Your task to perform on an android device: Clear the cart on walmart. Add acer predator to the cart on walmart Image 0: 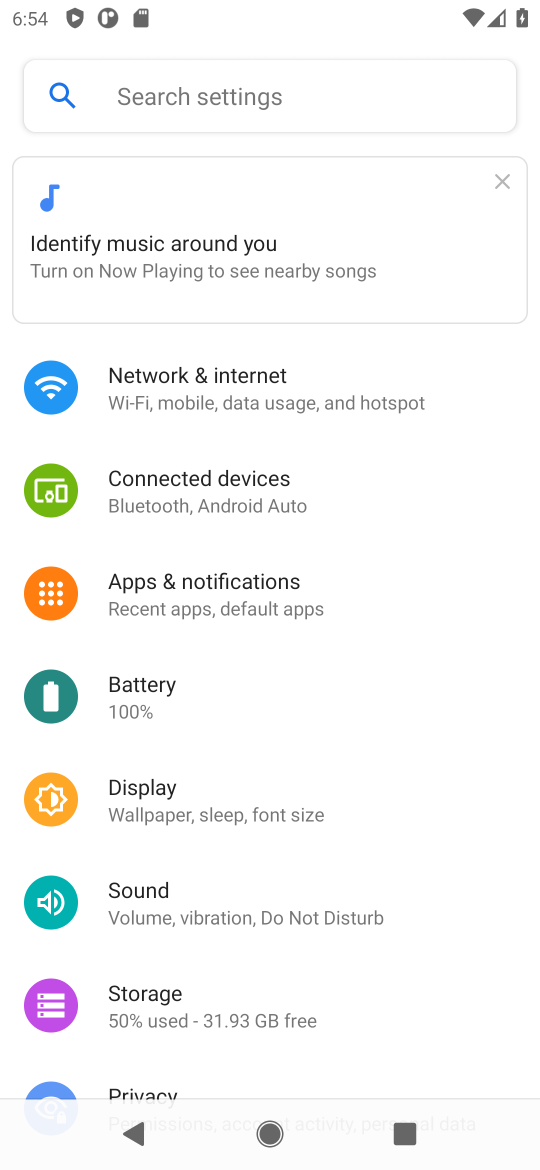
Step 0: press home button
Your task to perform on an android device: Clear the cart on walmart. Add acer predator to the cart on walmart Image 1: 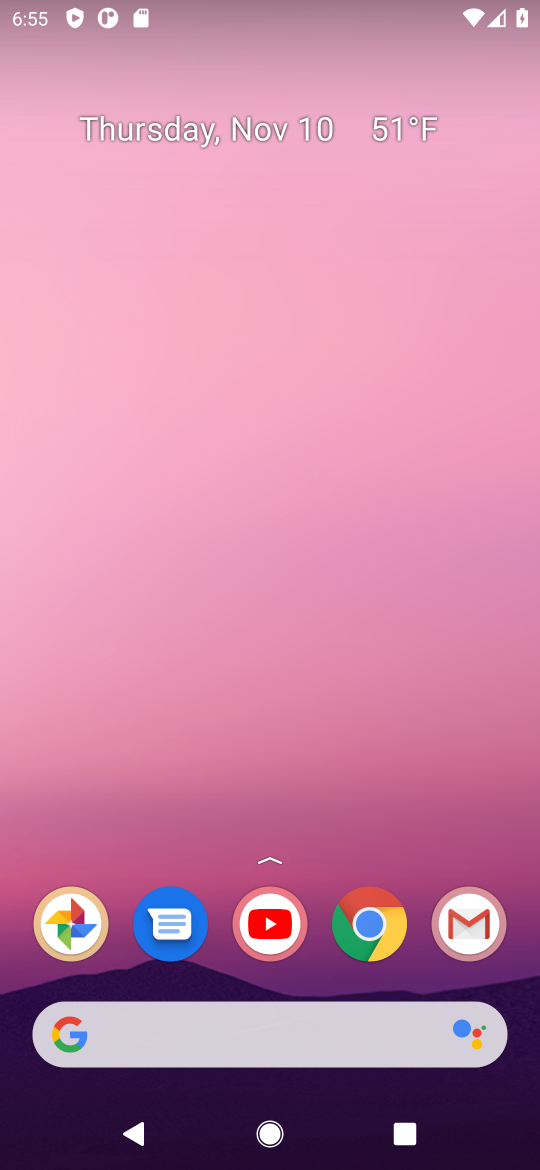
Step 1: click (364, 935)
Your task to perform on an android device: Clear the cart on walmart. Add acer predator to the cart on walmart Image 2: 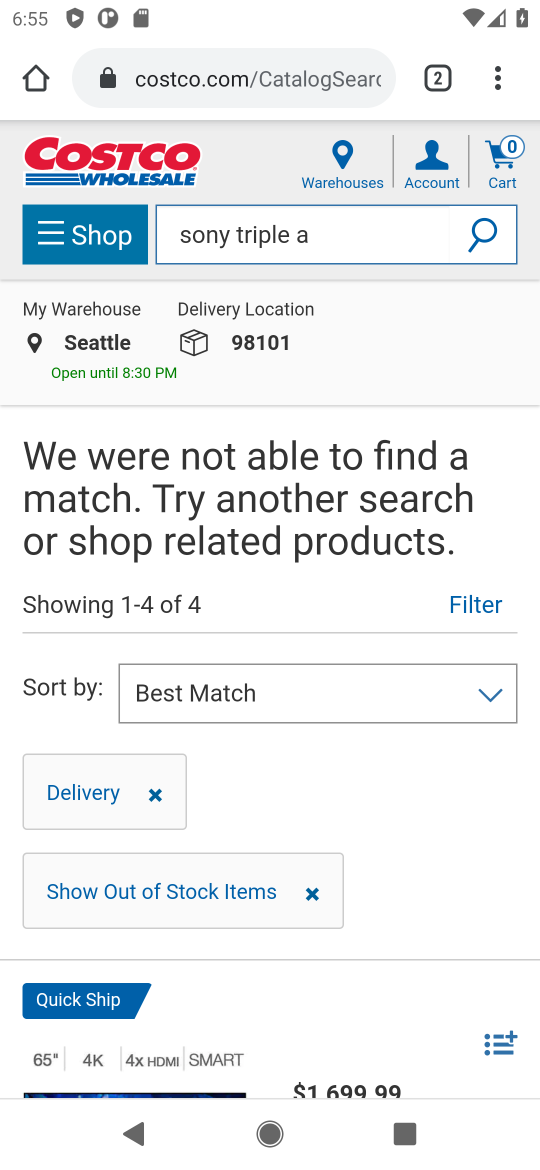
Step 2: click (218, 84)
Your task to perform on an android device: Clear the cart on walmart. Add acer predator to the cart on walmart Image 3: 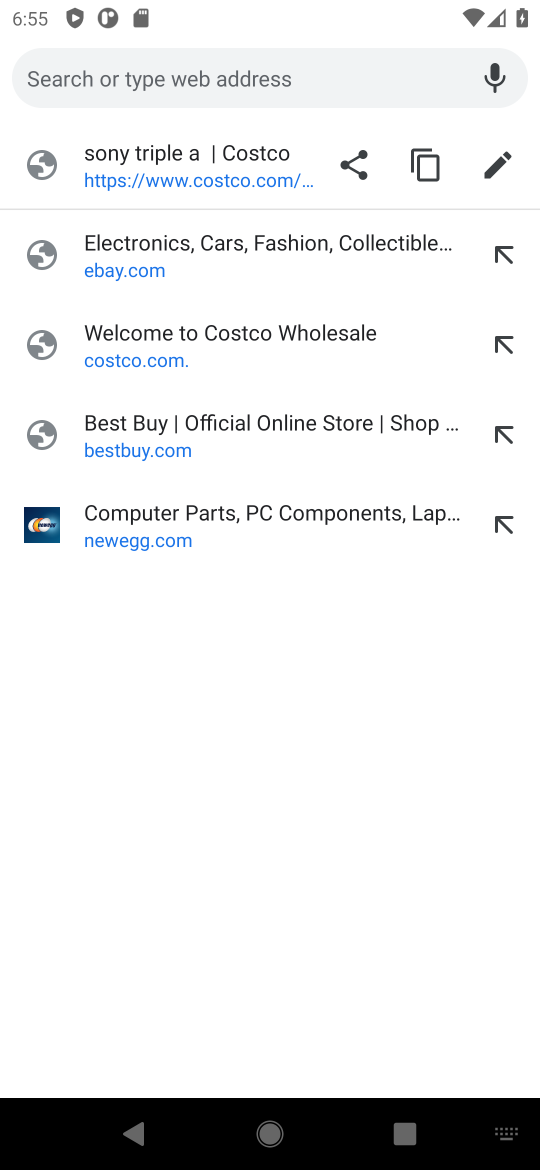
Step 3: type "walmart.com"
Your task to perform on an android device: Clear the cart on walmart. Add acer predator to the cart on walmart Image 4: 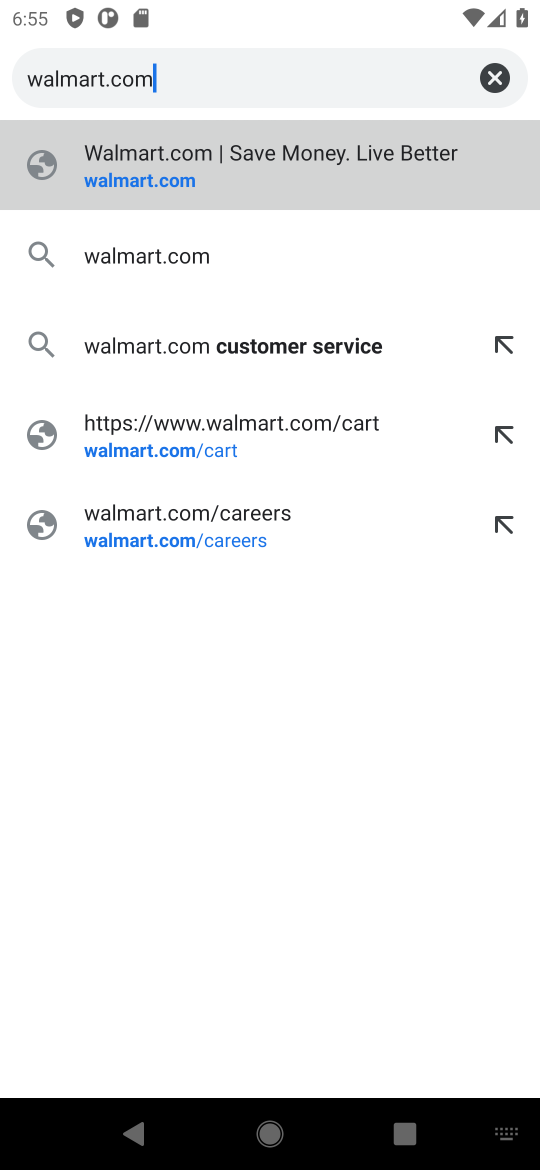
Step 4: click (128, 184)
Your task to perform on an android device: Clear the cart on walmart. Add acer predator to the cart on walmart Image 5: 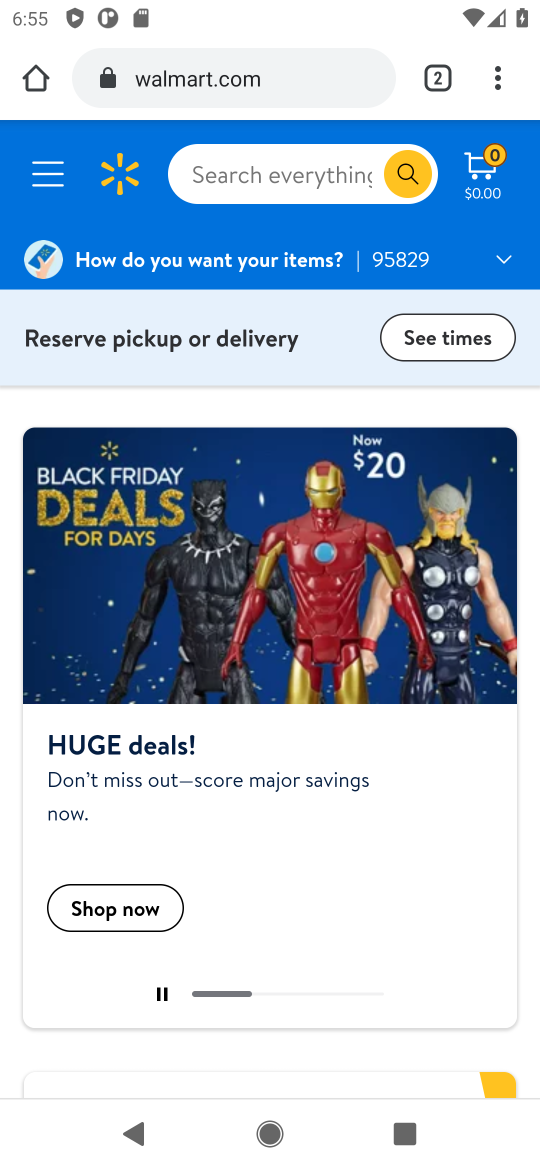
Step 5: click (487, 173)
Your task to perform on an android device: Clear the cart on walmart. Add acer predator to the cart on walmart Image 6: 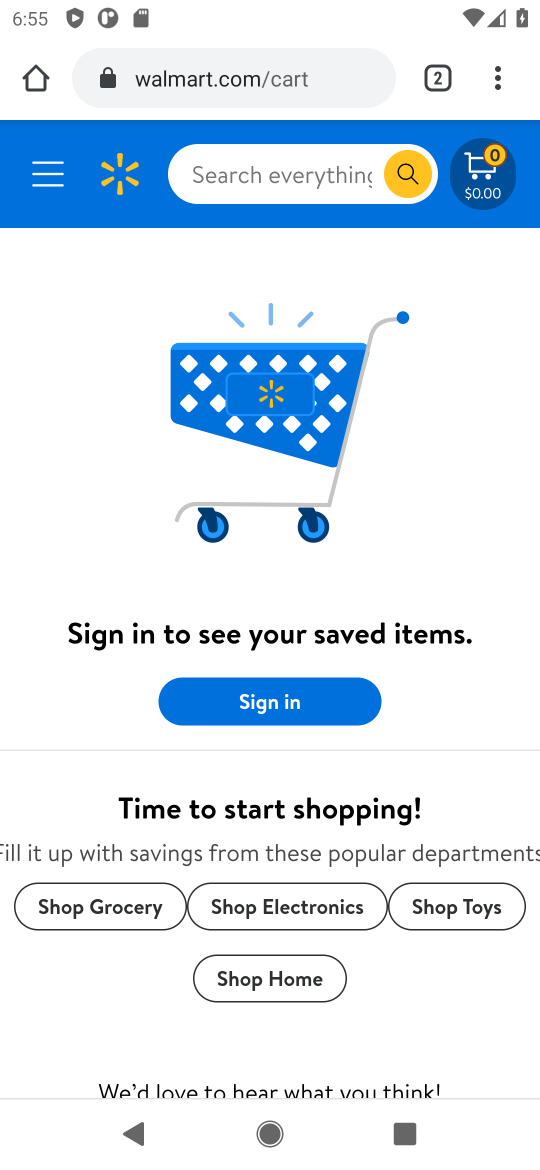
Step 6: click (267, 193)
Your task to perform on an android device: Clear the cart on walmart. Add acer predator to the cart on walmart Image 7: 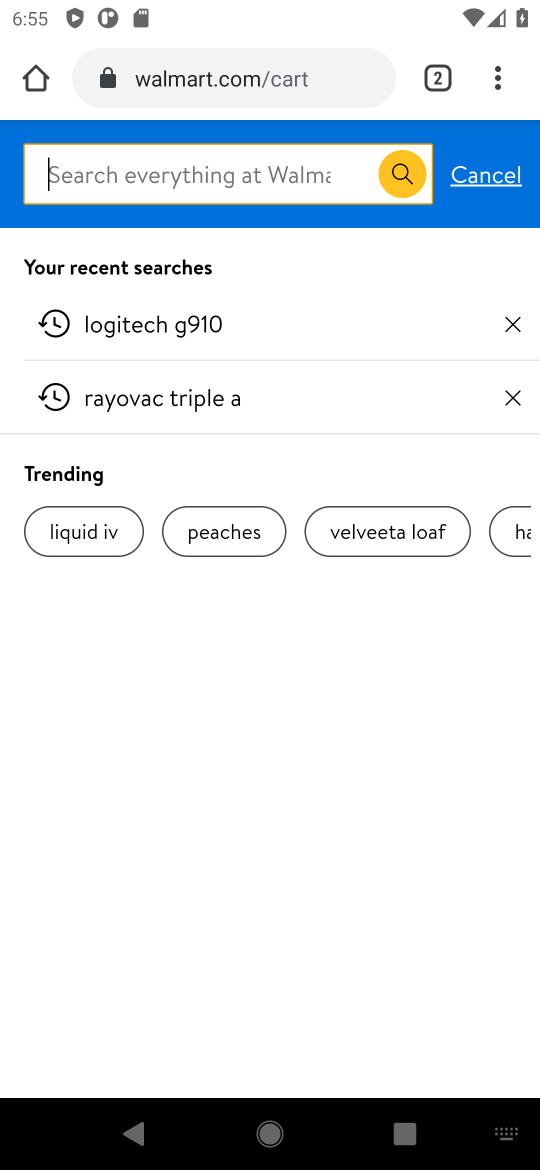
Step 7: type "acer predator"
Your task to perform on an android device: Clear the cart on walmart. Add acer predator to the cart on walmart Image 8: 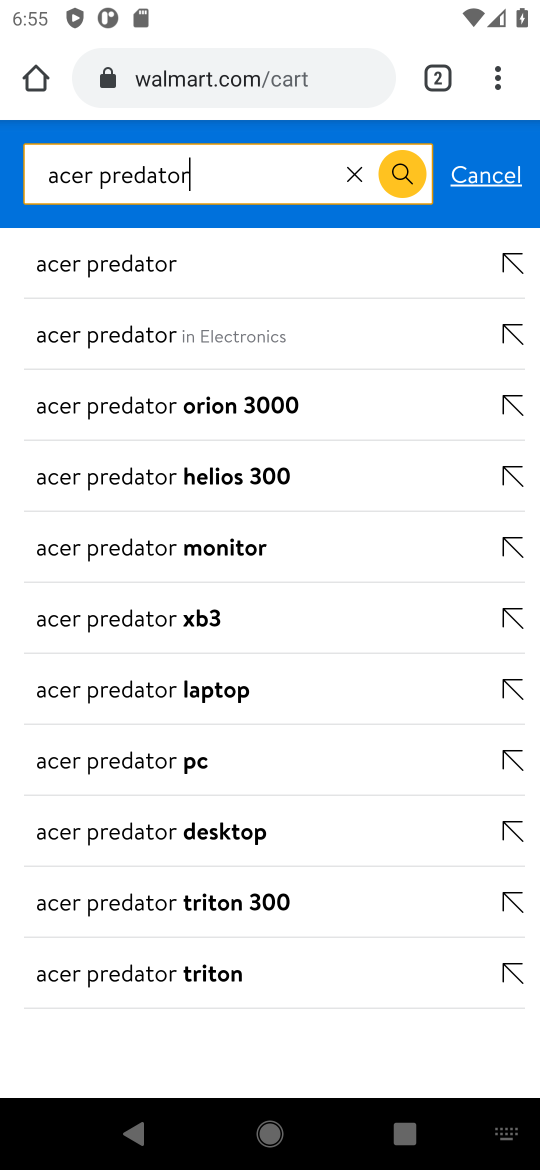
Step 8: click (145, 262)
Your task to perform on an android device: Clear the cart on walmart. Add acer predator to the cart on walmart Image 9: 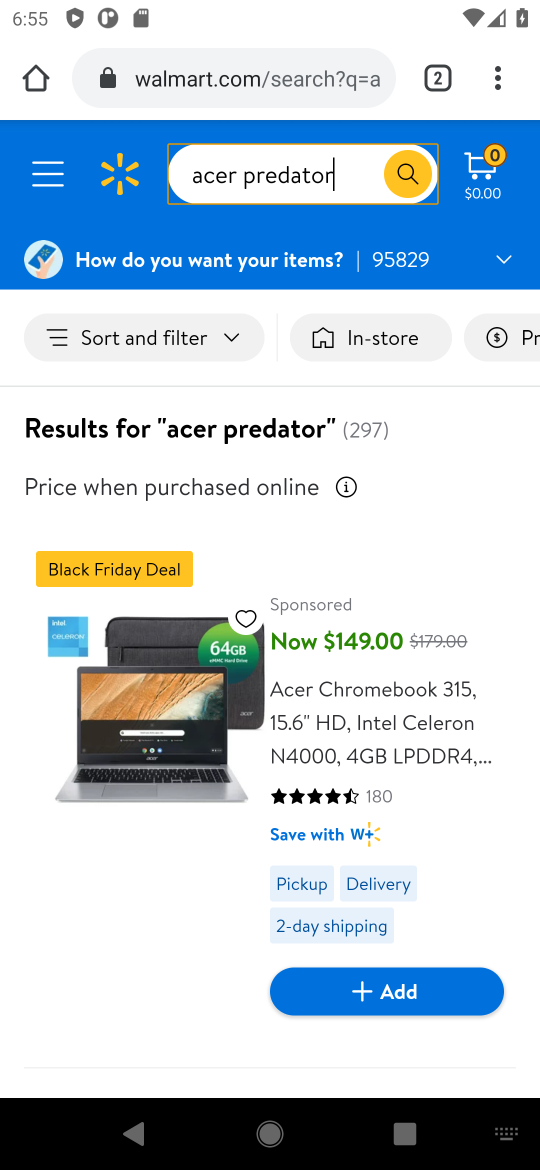
Step 9: drag from (199, 775) to (223, 412)
Your task to perform on an android device: Clear the cart on walmart. Add acer predator to the cart on walmart Image 10: 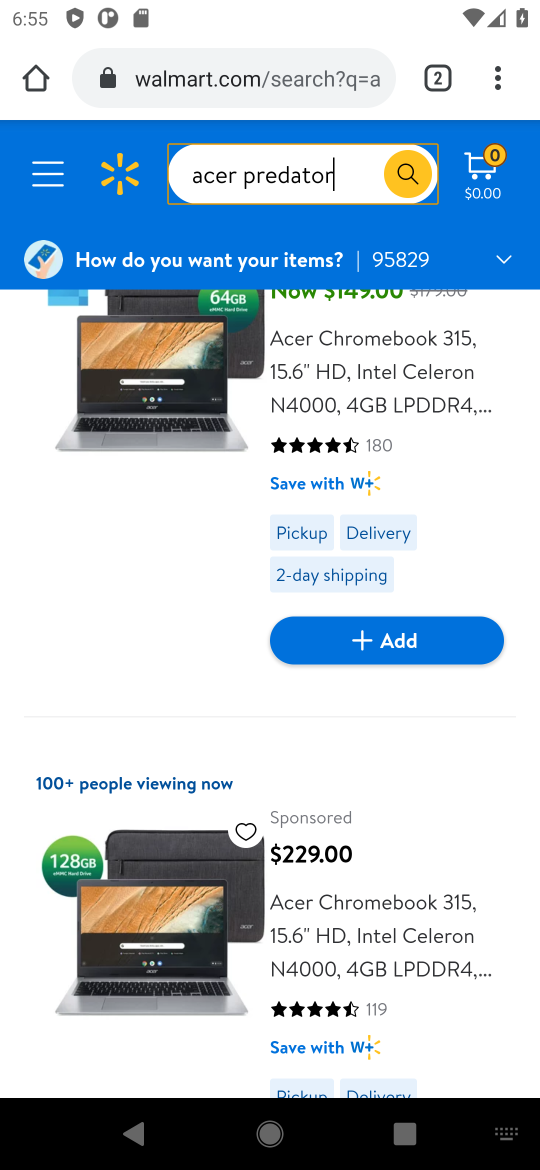
Step 10: drag from (191, 847) to (173, 529)
Your task to perform on an android device: Clear the cart on walmart. Add acer predator to the cart on walmart Image 11: 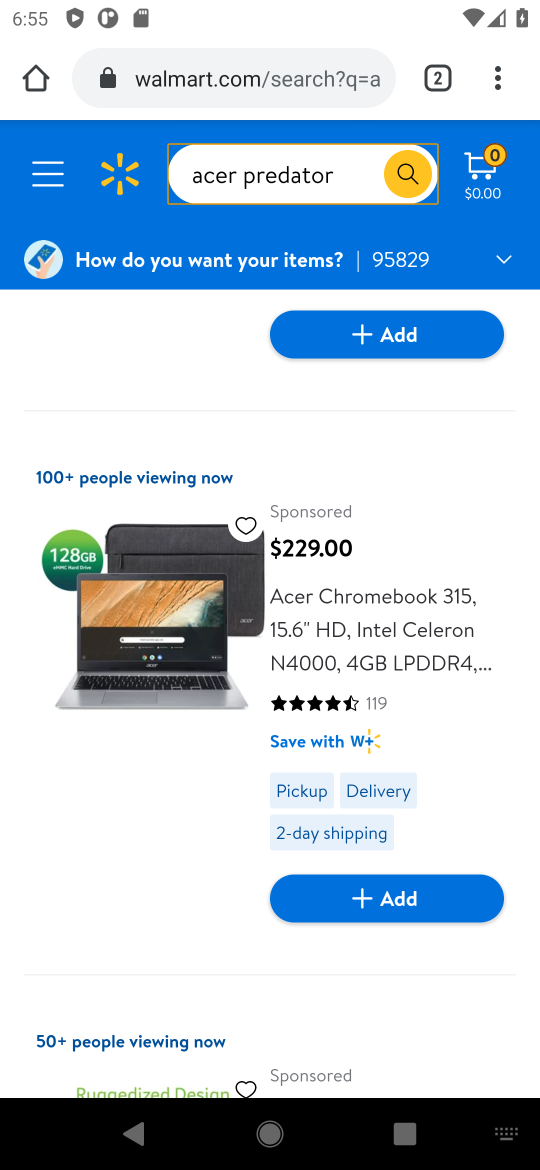
Step 11: drag from (189, 821) to (221, 453)
Your task to perform on an android device: Clear the cart on walmart. Add acer predator to the cart on walmart Image 12: 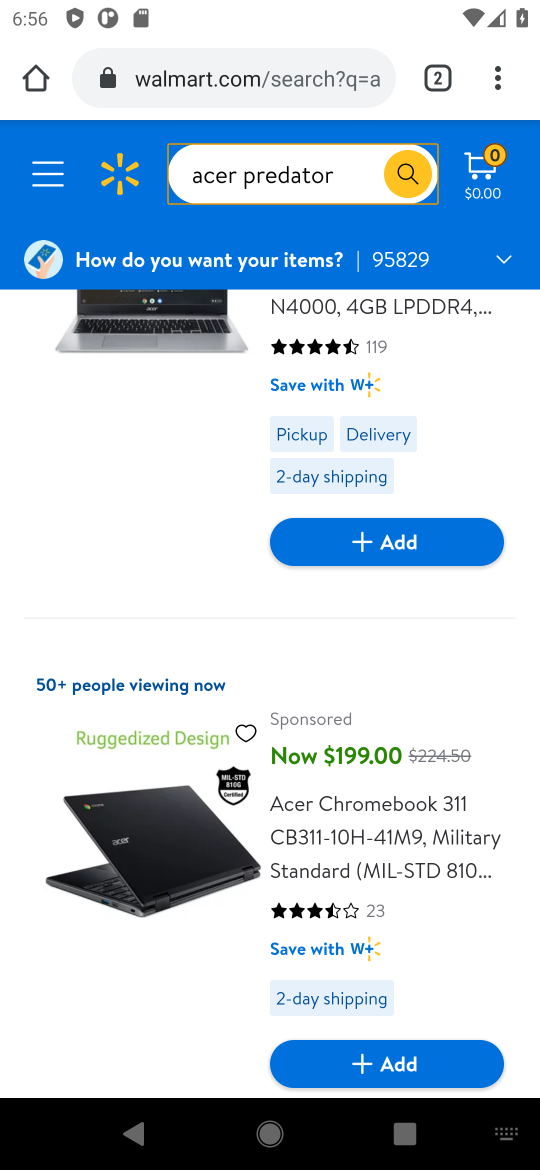
Step 12: drag from (185, 863) to (185, 451)
Your task to perform on an android device: Clear the cart on walmart. Add acer predator to the cart on walmart Image 13: 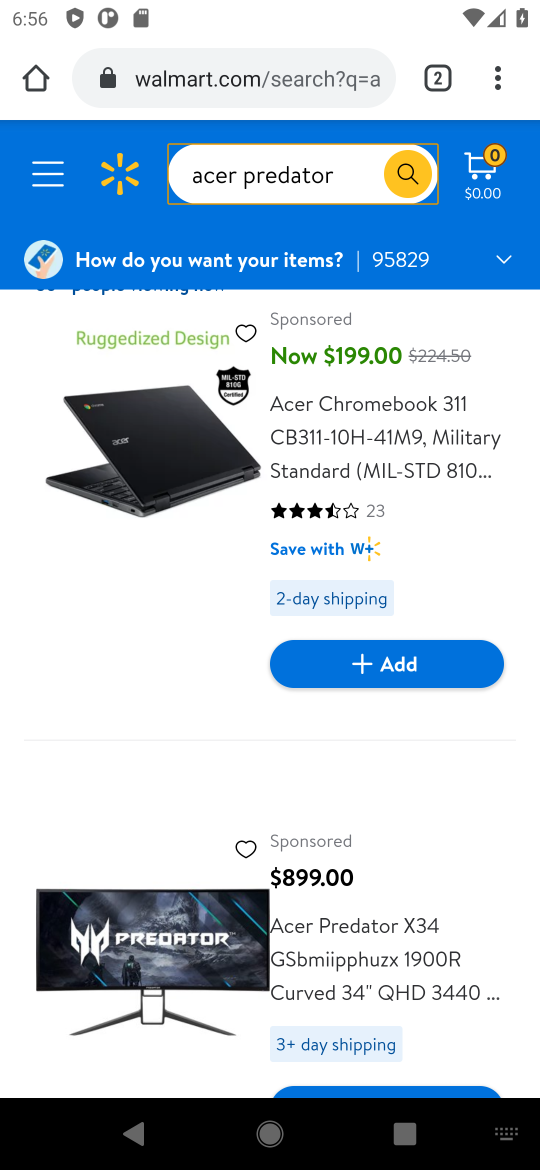
Step 13: drag from (173, 860) to (204, 490)
Your task to perform on an android device: Clear the cart on walmart. Add acer predator to the cart on walmart Image 14: 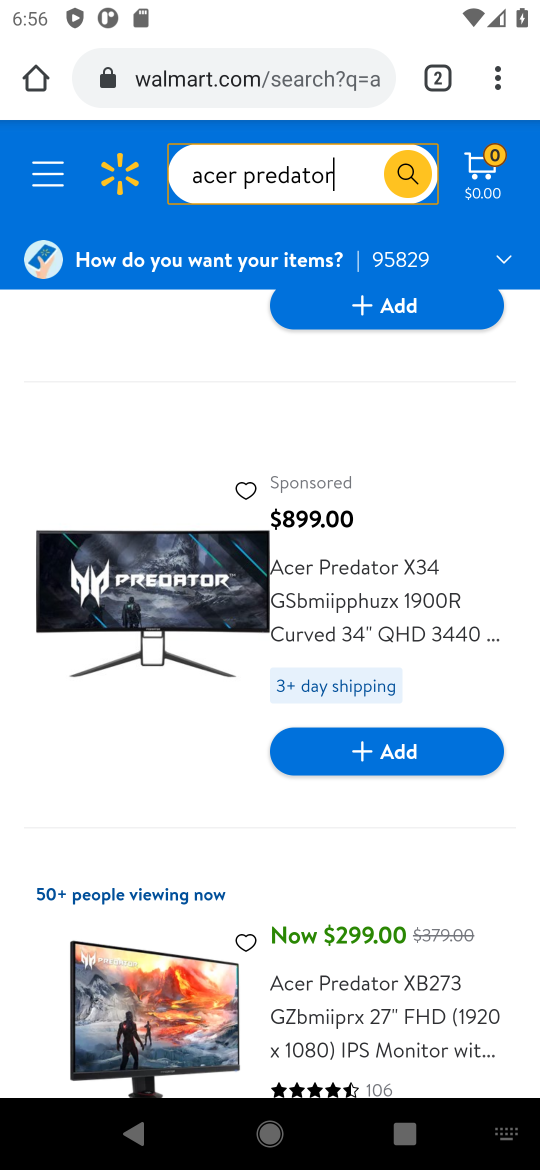
Step 14: click (395, 744)
Your task to perform on an android device: Clear the cart on walmart. Add acer predator to the cart on walmart Image 15: 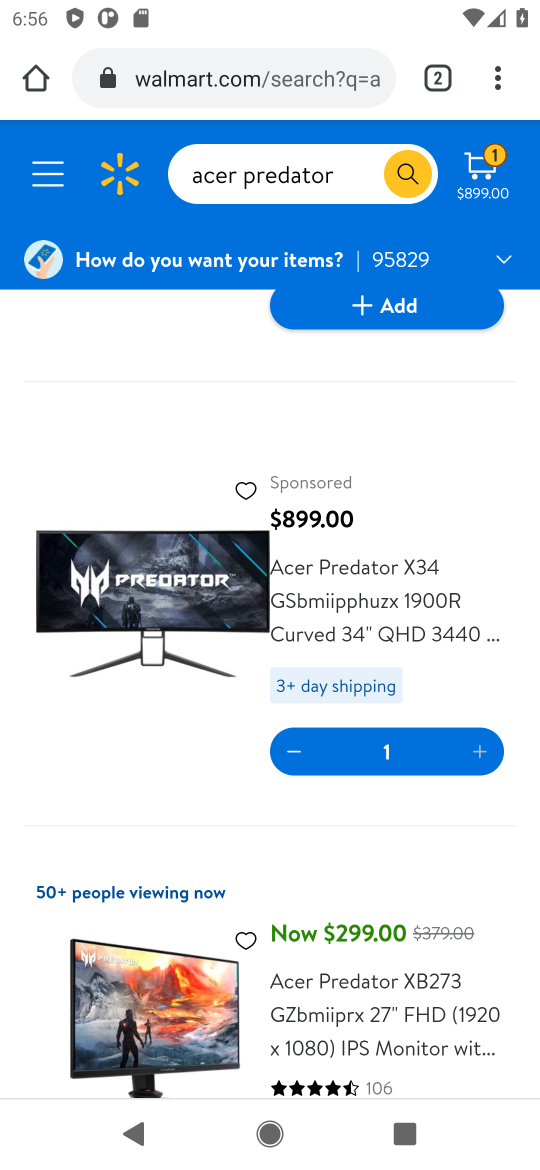
Step 15: click (489, 174)
Your task to perform on an android device: Clear the cart on walmart. Add acer predator to the cart on walmart Image 16: 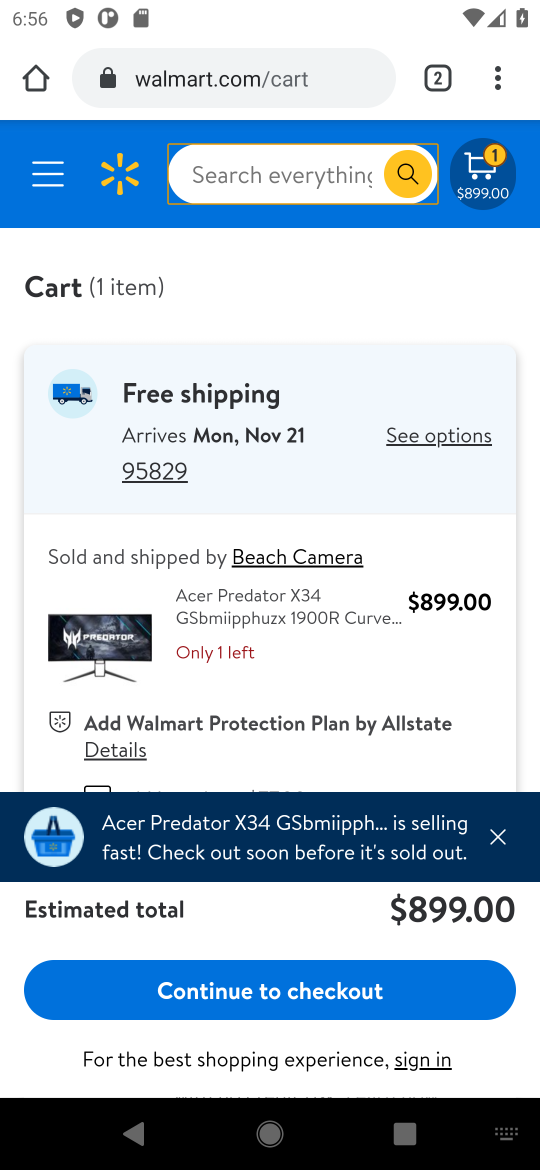
Step 16: click (279, 990)
Your task to perform on an android device: Clear the cart on walmart. Add acer predator to the cart on walmart Image 17: 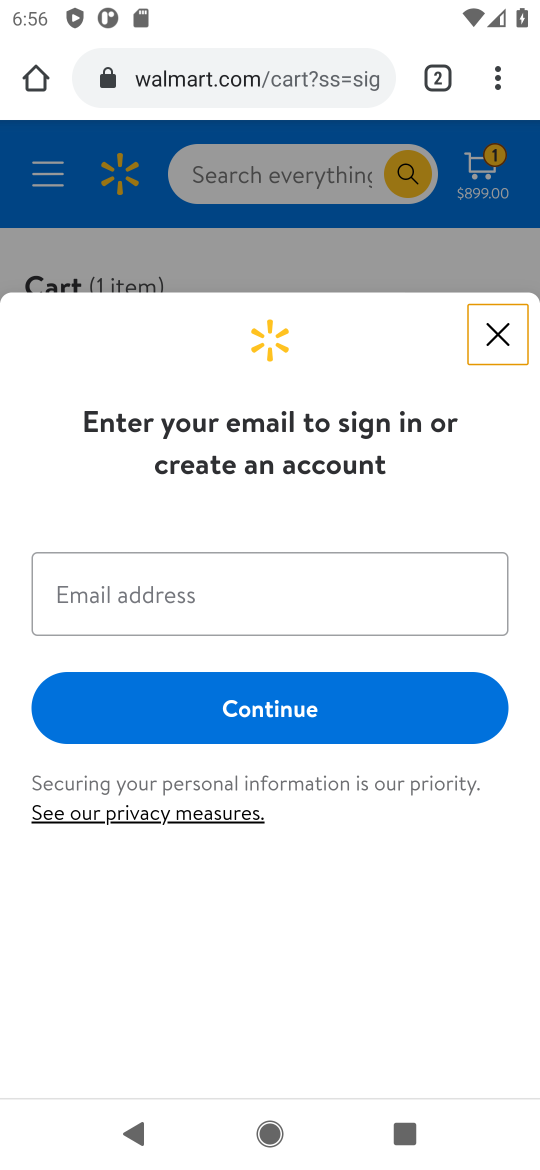
Step 17: task complete